Your task to perform on an android device: allow cookies in the chrome app Image 0: 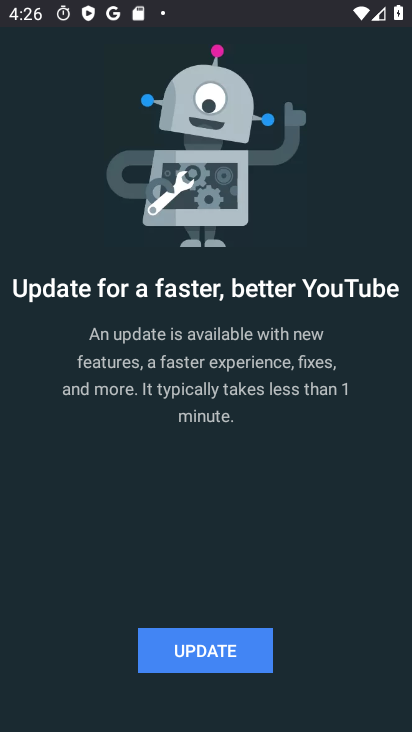
Step 0: click (237, 502)
Your task to perform on an android device: allow cookies in the chrome app Image 1: 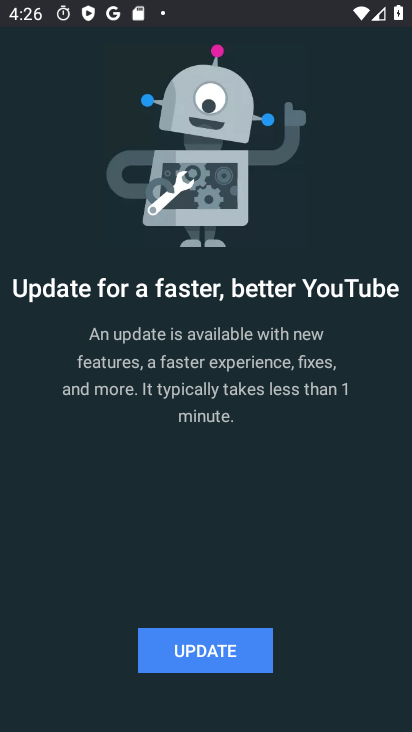
Step 1: press home button
Your task to perform on an android device: allow cookies in the chrome app Image 2: 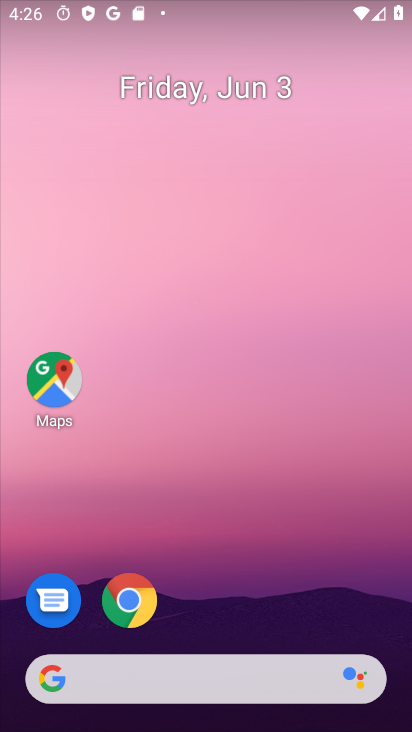
Step 2: drag from (397, 706) to (393, 247)
Your task to perform on an android device: allow cookies in the chrome app Image 3: 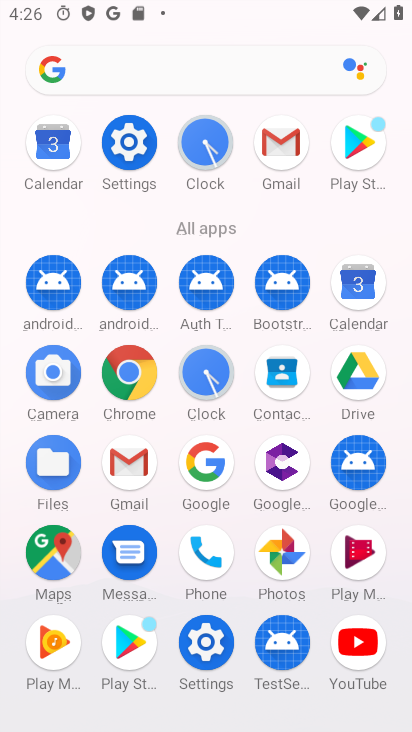
Step 3: click (132, 362)
Your task to perform on an android device: allow cookies in the chrome app Image 4: 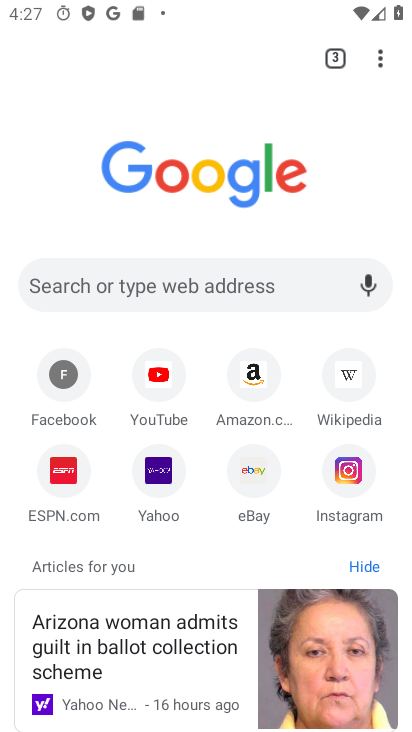
Step 4: click (379, 52)
Your task to perform on an android device: allow cookies in the chrome app Image 5: 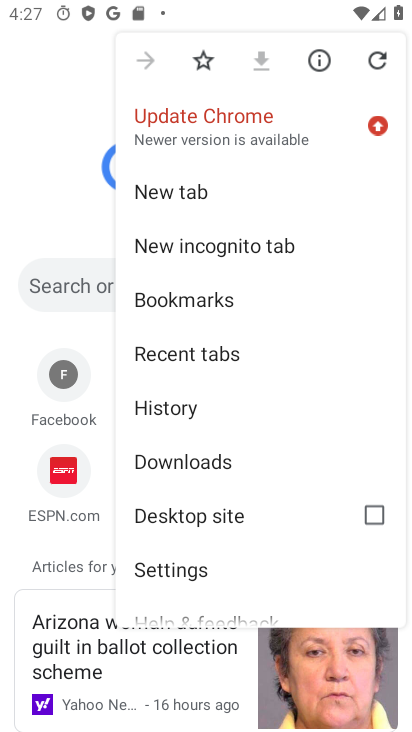
Step 5: click (196, 567)
Your task to perform on an android device: allow cookies in the chrome app Image 6: 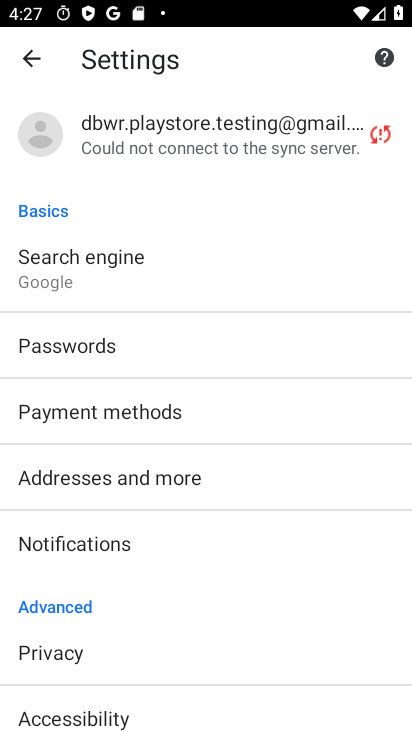
Step 6: drag from (229, 658) to (196, 357)
Your task to perform on an android device: allow cookies in the chrome app Image 7: 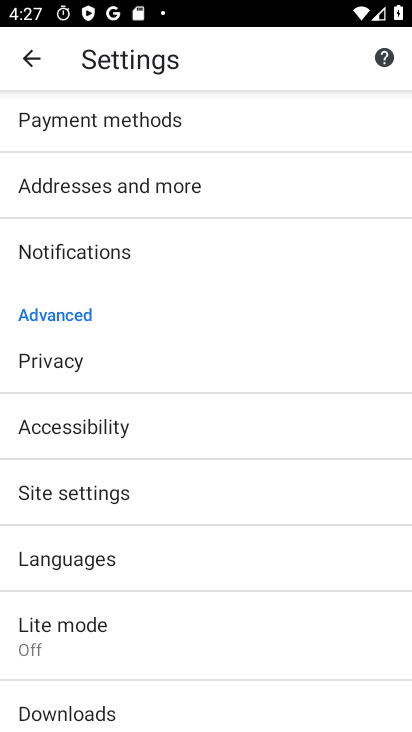
Step 7: click (58, 488)
Your task to perform on an android device: allow cookies in the chrome app Image 8: 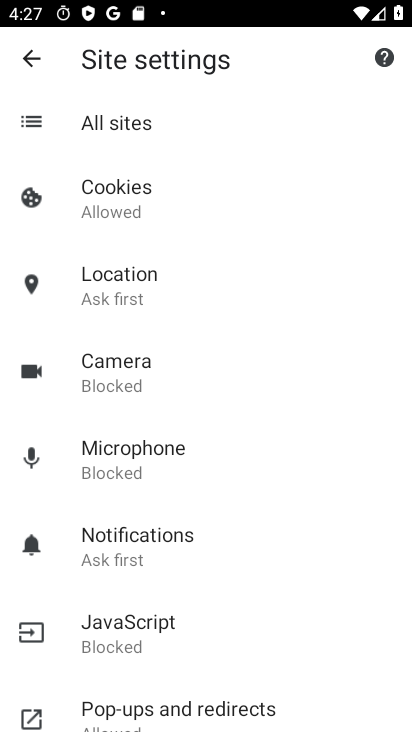
Step 8: drag from (278, 581) to (292, 269)
Your task to perform on an android device: allow cookies in the chrome app Image 9: 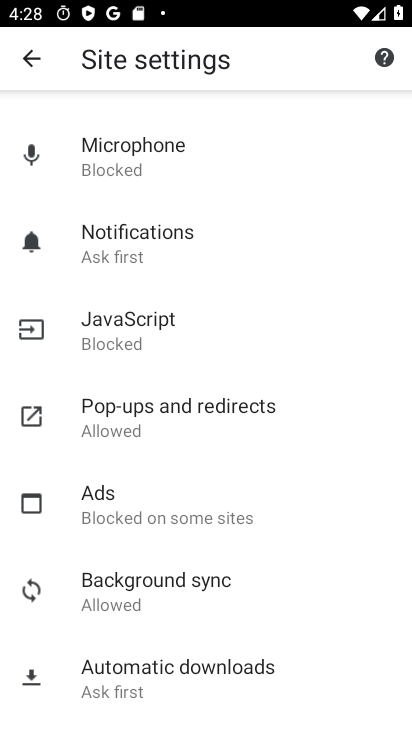
Step 9: drag from (307, 256) to (288, 660)
Your task to perform on an android device: allow cookies in the chrome app Image 10: 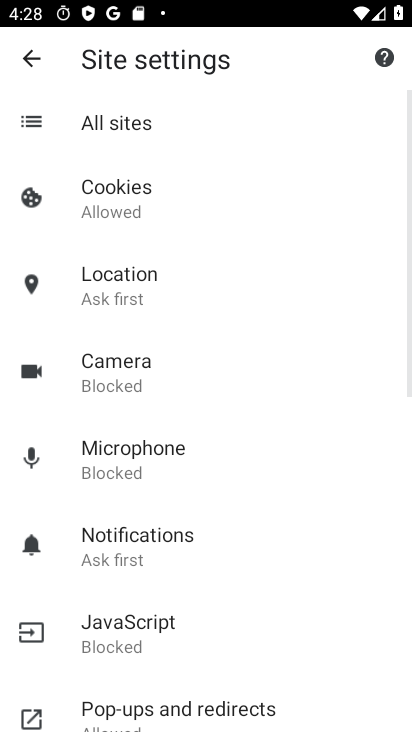
Step 10: click (97, 197)
Your task to perform on an android device: allow cookies in the chrome app Image 11: 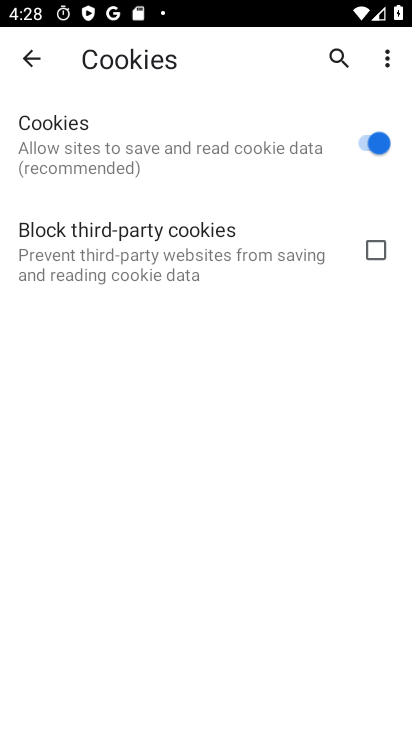
Step 11: task complete